Your task to perform on an android device: Show me popular videos on Youtube Image 0: 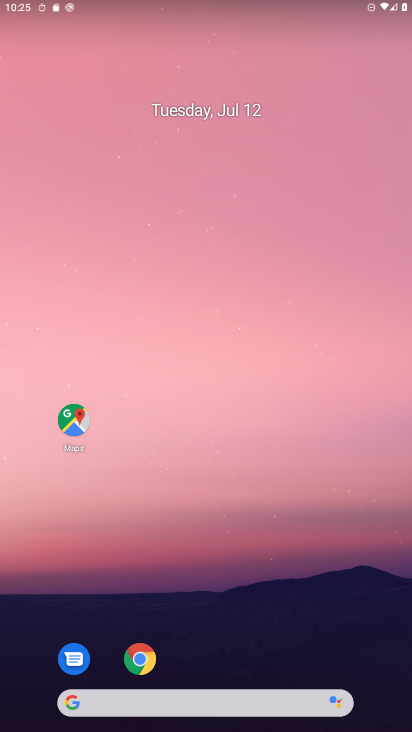
Step 0: drag from (199, 715) to (199, 137)
Your task to perform on an android device: Show me popular videos on Youtube Image 1: 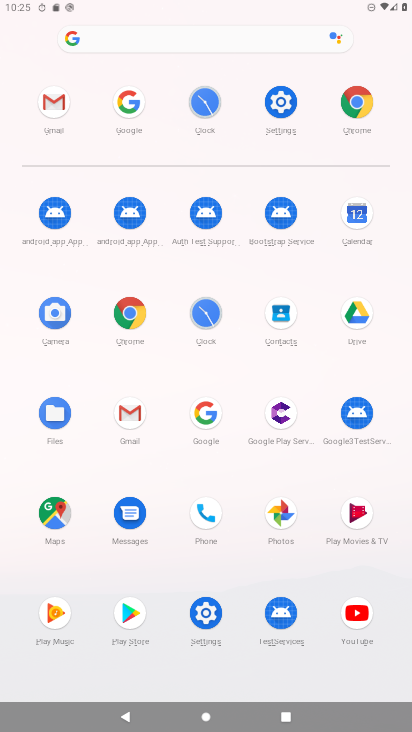
Step 1: click (356, 615)
Your task to perform on an android device: Show me popular videos on Youtube Image 2: 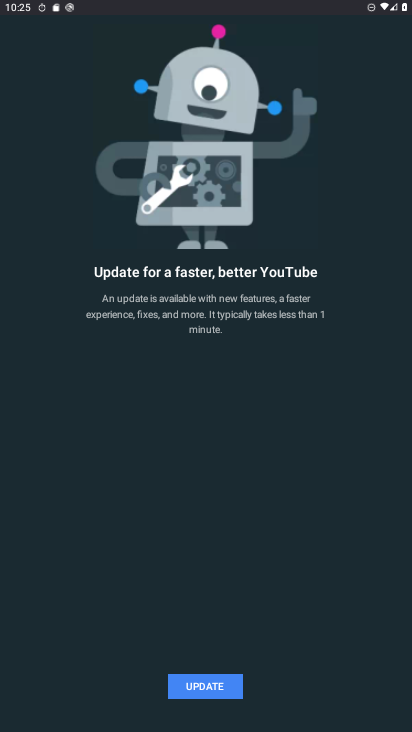
Step 2: task complete